Your task to perform on an android device: turn smart compose on in the gmail app Image 0: 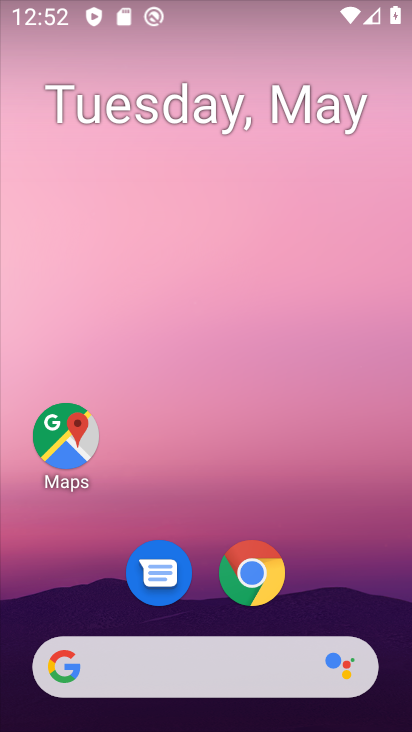
Step 0: drag from (325, 363) to (284, 66)
Your task to perform on an android device: turn smart compose on in the gmail app Image 1: 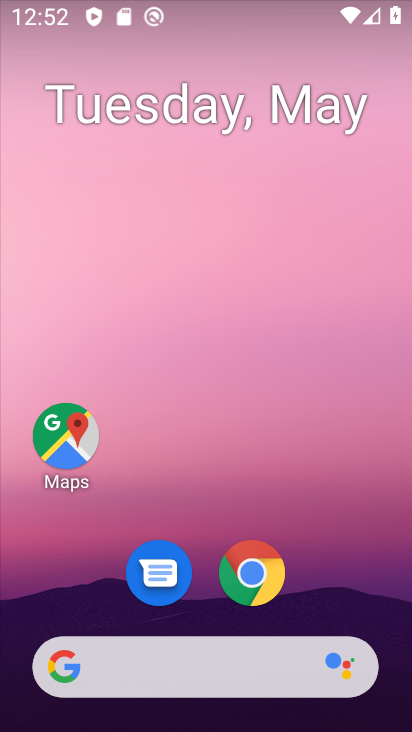
Step 1: drag from (345, 519) to (242, 42)
Your task to perform on an android device: turn smart compose on in the gmail app Image 2: 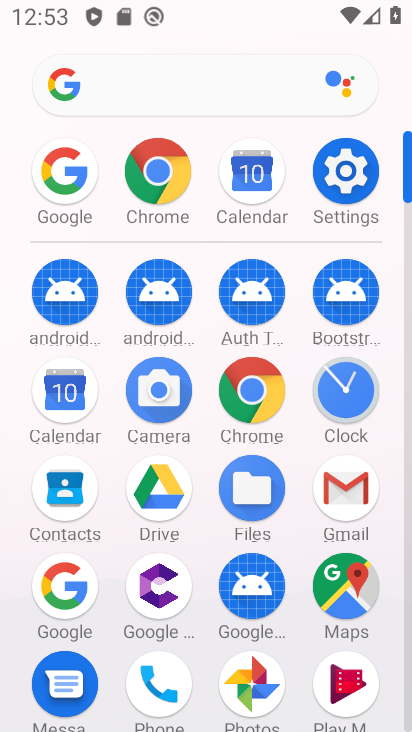
Step 2: click (346, 487)
Your task to perform on an android device: turn smart compose on in the gmail app Image 3: 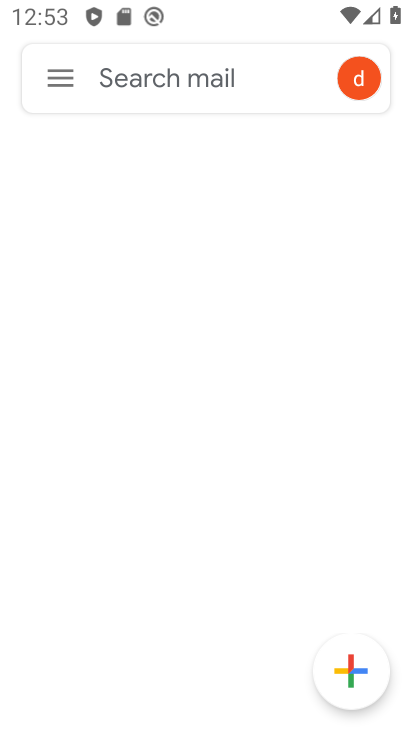
Step 3: click (56, 77)
Your task to perform on an android device: turn smart compose on in the gmail app Image 4: 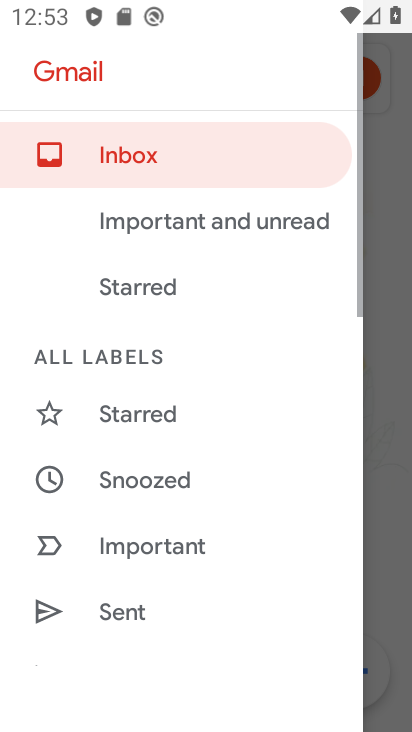
Step 4: drag from (190, 522) to (169, 137)
Your task to perform on an android device: turn smart compose on in the gmail app Image 5: 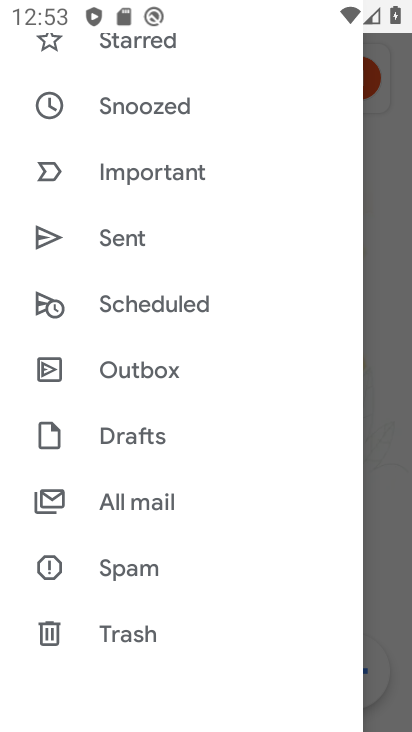
Step 5: drag from (192, 406) to (134, 286)
Your task to perform on an android device: turn smart compose on in the gmail app Image 6: 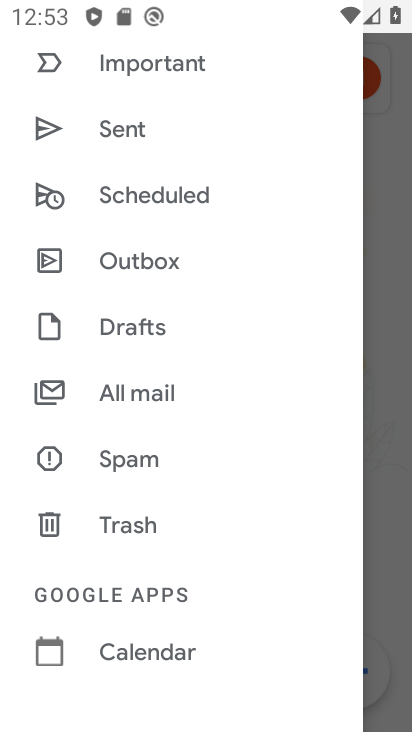
Step 6: drag from (249, 374) to (228, 245)
Your task to perform on an android device: turn smart compose on in the gmail app Image 7: 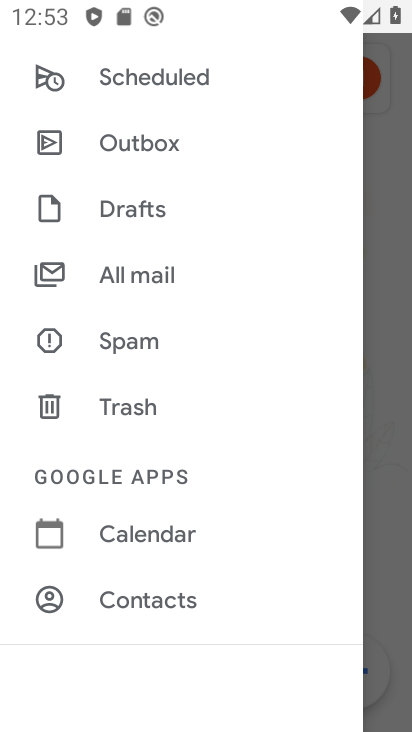
Step 7: drag from (221, 490) to (163, 91)
Your task to perform on an android device: turn smart compose on in the gmail app Image 8: 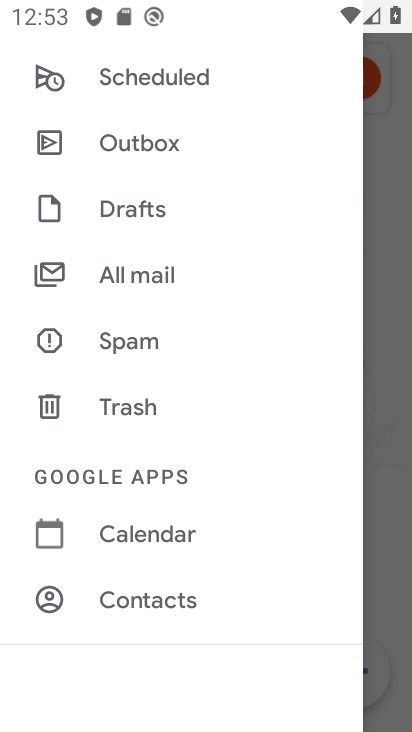
Step 8: drag from (155, 537) to (155, 147)
Your task to perform on an android device: turn smart compose on in the gmail app Image 9: 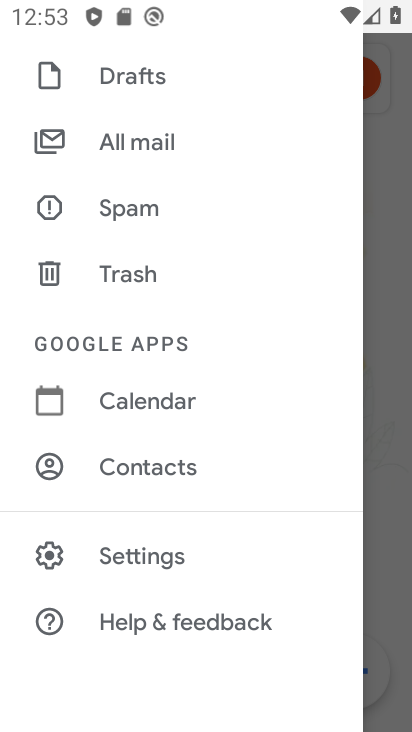
Step 9: click (165, 567)
Your task to perform on an android device: turn smart compose on in the gmail app Image 10: 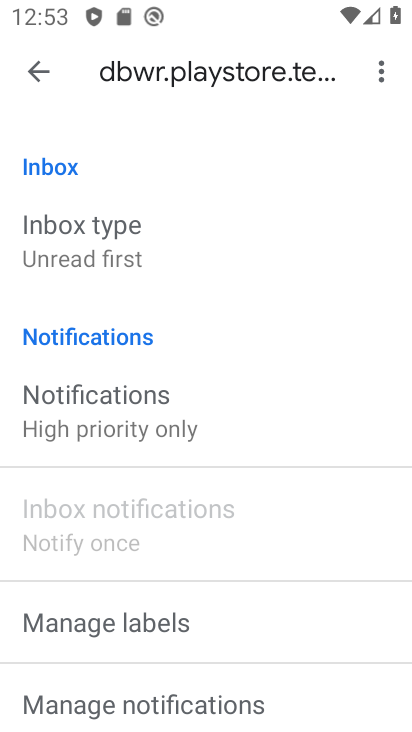
Step 10: task complete